Your task to perform on an android device: toggle data saver in the chrome app Image 0: 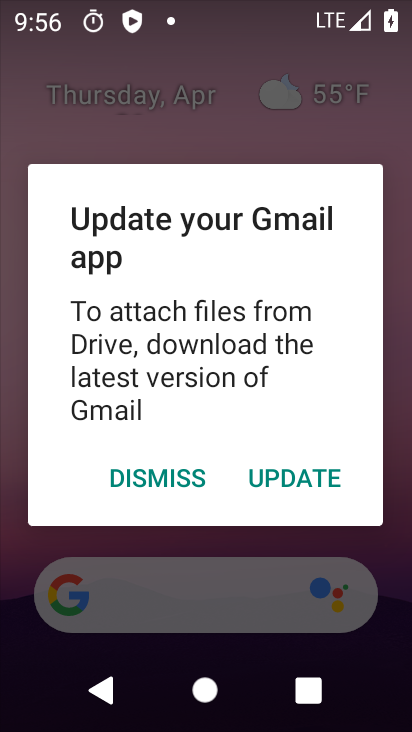
Step 0: press home button
Your task to perform on an android device: toggle data saver in the chrome app Image 1: 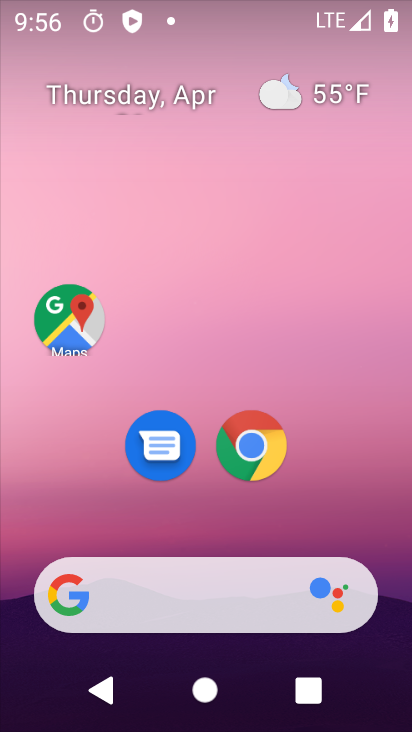
Step 1: click (235, 439)
Your task to perform on an android device: toggle data saver in the chrome app Image 2: 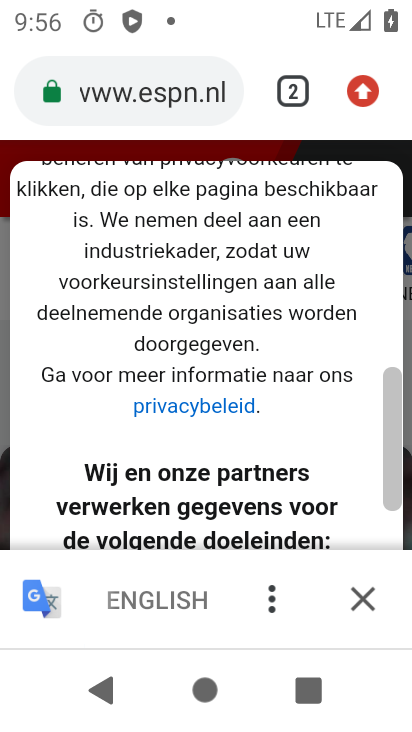
Step 2: click (356, 93)
Your task to perform on an android device: toggle data saver in the chrome app Image 3: 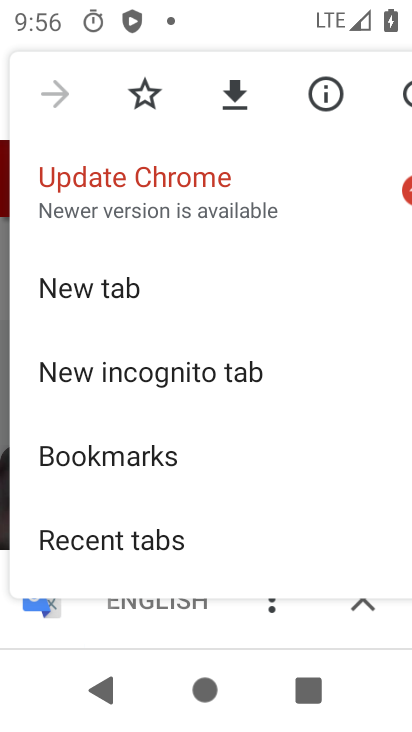
Step 3: drag from (228, 418) to (228, 89)
Your task to perform on an android device: toggle data saver in the chrome app Image 4: 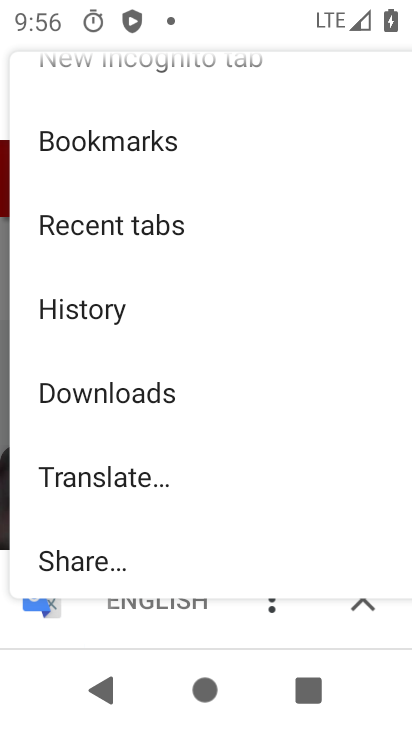
Step 4: drag from (216, 435) to (217, 87)
Your task to perform on an android device: toggle data saver in the chrome app Image 5: 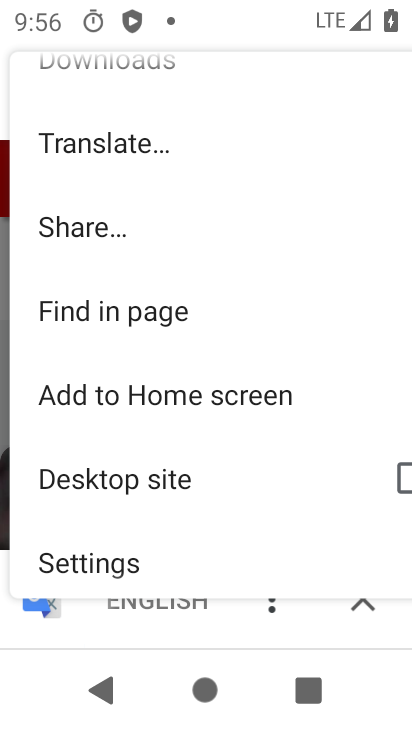
Step 5: drag from (183, 427) to (187, 103)
Your task to perform on an android device: toggle data saver in the chrome app Image 6: 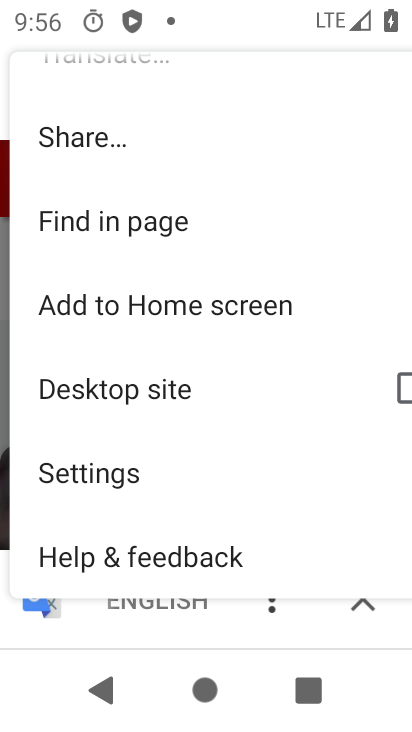
Step 6: click (85, 486)
Your task to perform on an android device: toggle data saver in the chrome app Image 7: 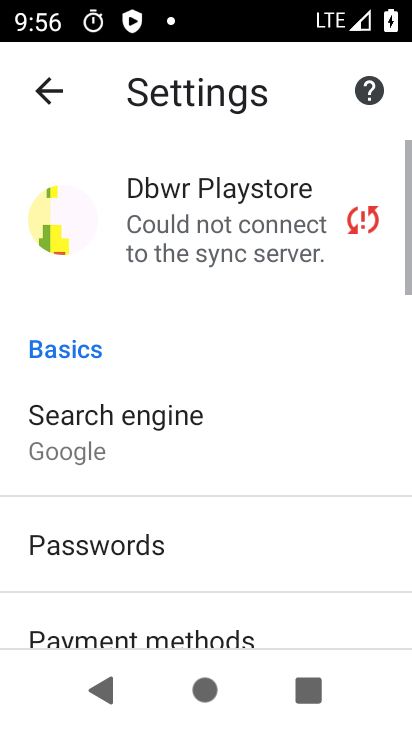
Step 7: drag from (178, 472) to (181, 143)
Your task to perform on an android device: toggle data saver in the chrome app Image 8: 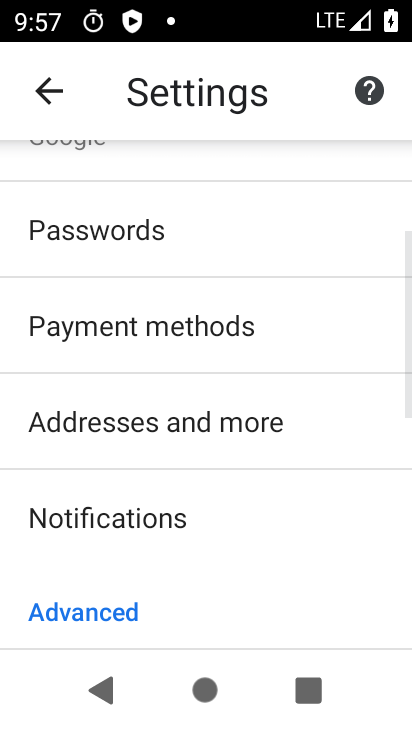
Step 8: drag from (165, 510) to (162, 157)
Your task to perform on an android device: toggle data saver in the chrome app Image 9: 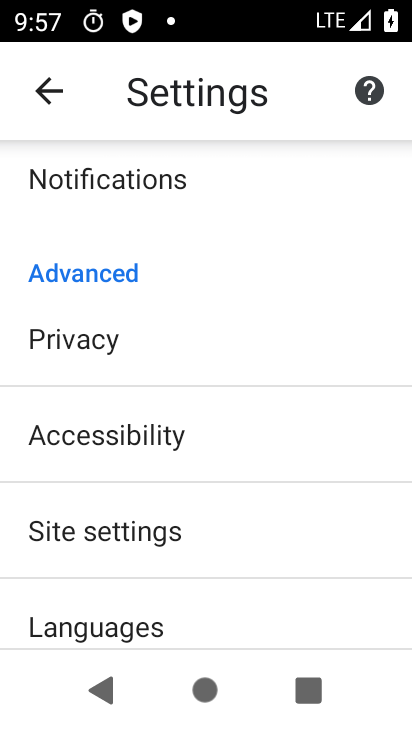
Step 9: drag from (138, 571) to (144, 221)
Your task to perform on an android device: toggle data saver in the chrome app Image 10: 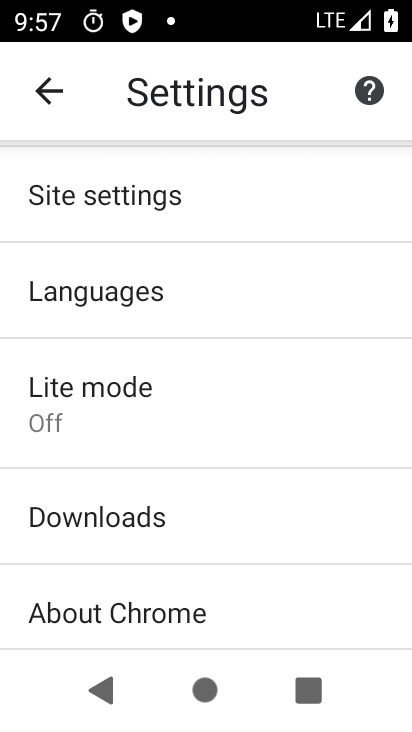
Step 10: click (75, 400)
Your task to perform on an android device: toggle data saver in the chrome app Image 11: 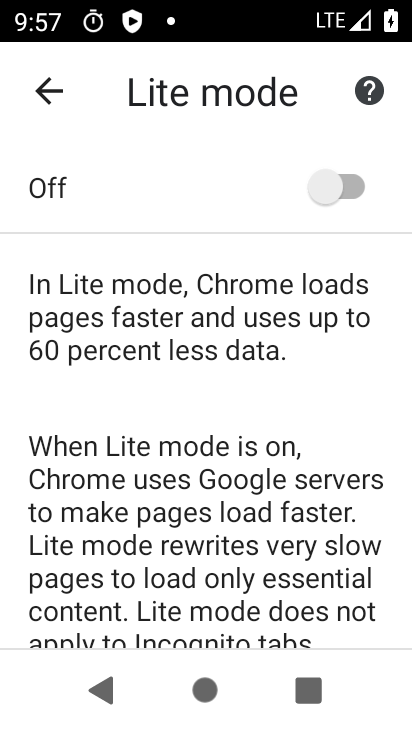
Step 11: click (337, 197)
Your task to perform on an android device: toggle data saver in the chrome app Image 12: 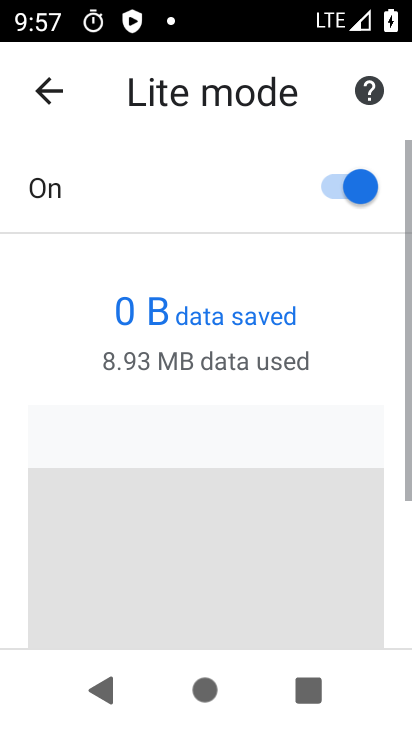
Step 12: task complete